Your task to perform on an android device: turn off airplane mode Image 0: 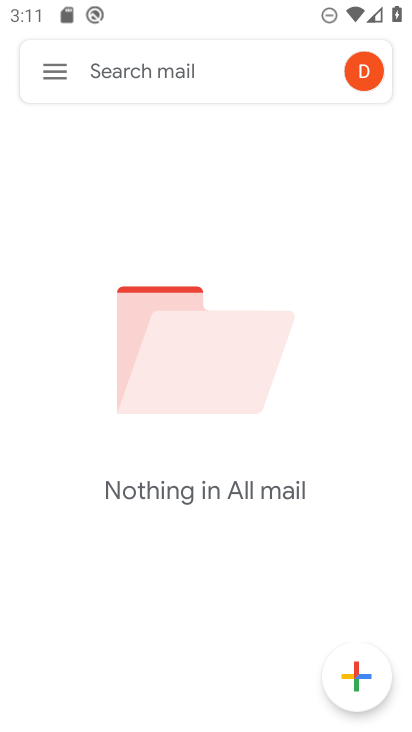
Step 0: press home button
Your task to perform on an android device: turn off airplane mode Image 1: 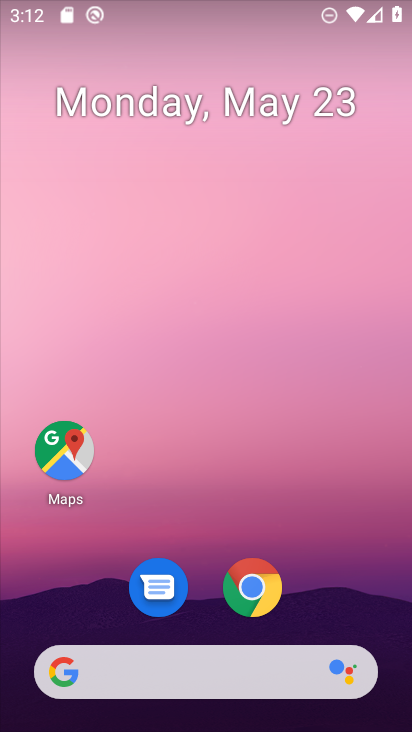
Step 1: drag from (204, 601) to (177, 18)
Your task to perform on an android device: turn off airplane mode Image 2: 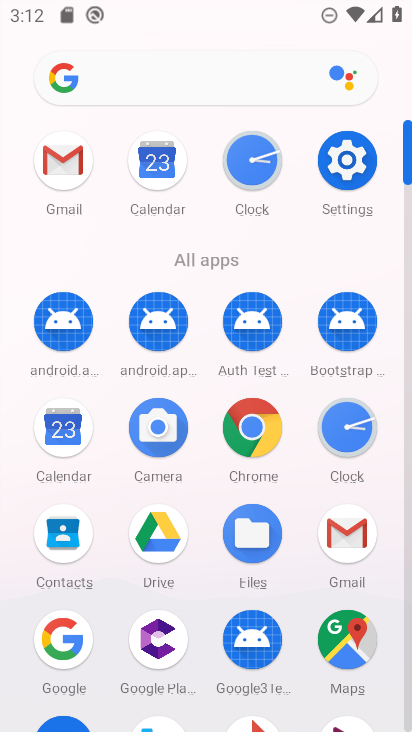
Step 2: click (350, 186)
Your task to perform on an android device: turn off airplane mode Image 3: 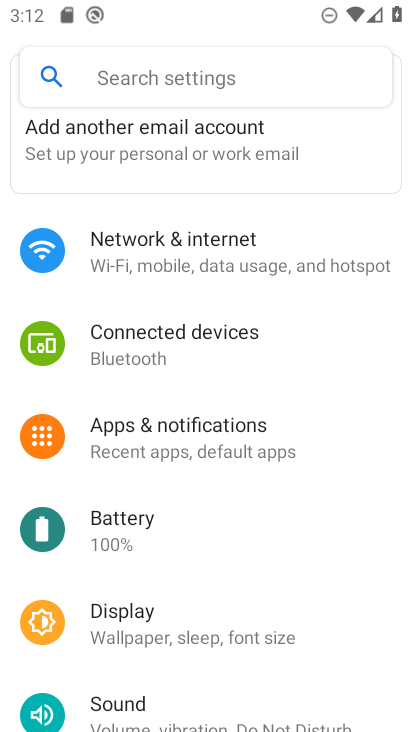
Step 3: click (256, 264)
Your task to perform on an android device: turn off airplane mode Image 4: 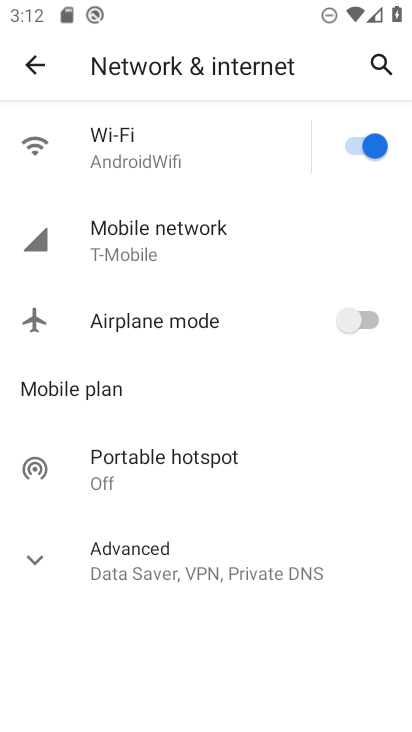
Step 4: task complete